Your task to perform on an android device: Open Yahoo.com Image 0: 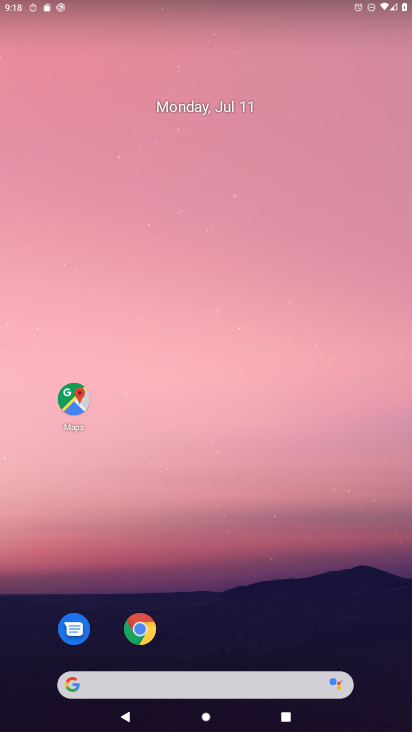
Step 0: click (142, 627)
Your task to perform on an android device: Open Yahoo.com Image 1: 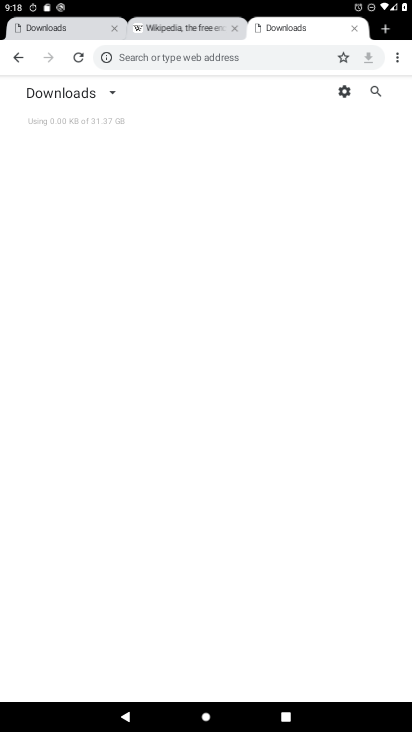
Step 1: press back button
Your task to perform on an android device: Open Yahoo.com Image 2: 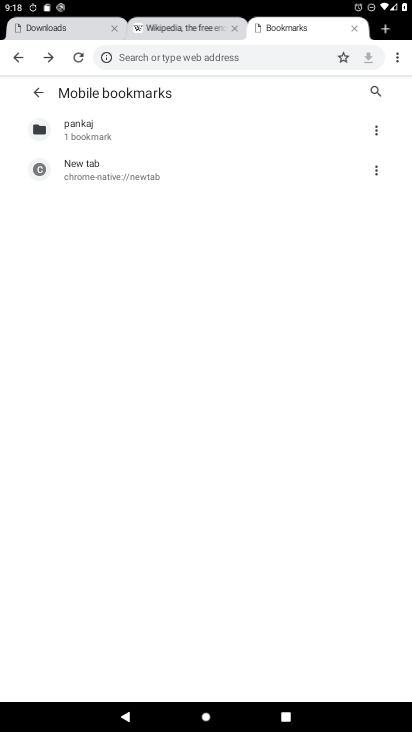
Step 2: press back button
Your task to perform on an android device: Open Yahoo.com Image 3: 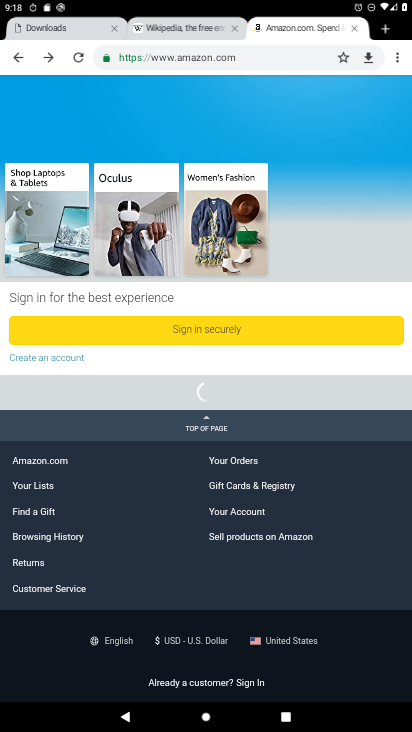
Step 3: press back button
Your task to perform on an android device: Open Yahoo.com Image 4: 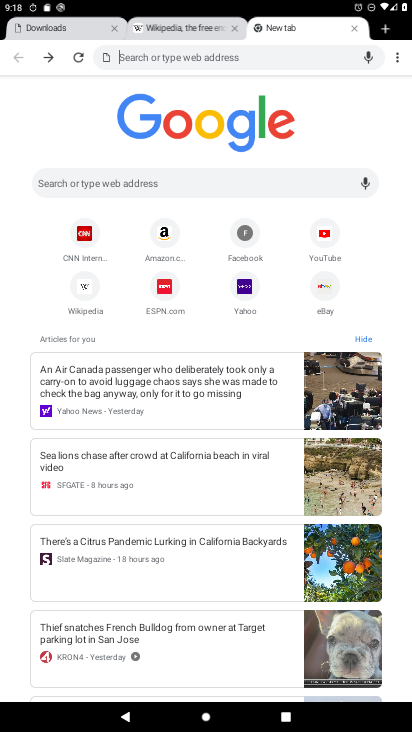
Step 4: click (253, 281)
Your task to perform on an android device: Open Yahoo.com Image 5: 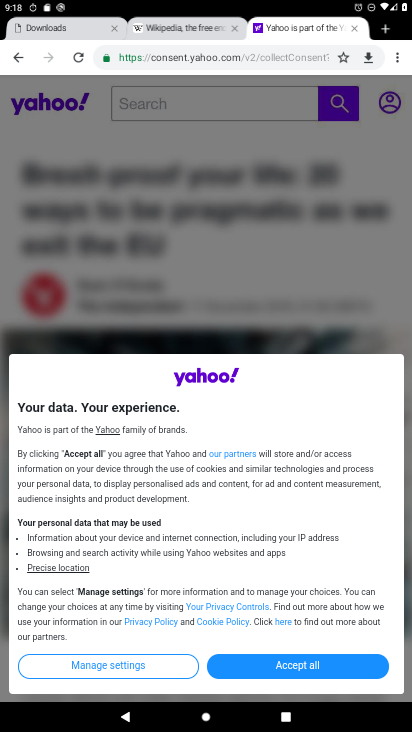
Step 5: task complete